Your task to perform on an android device: Open location settings Image 0: 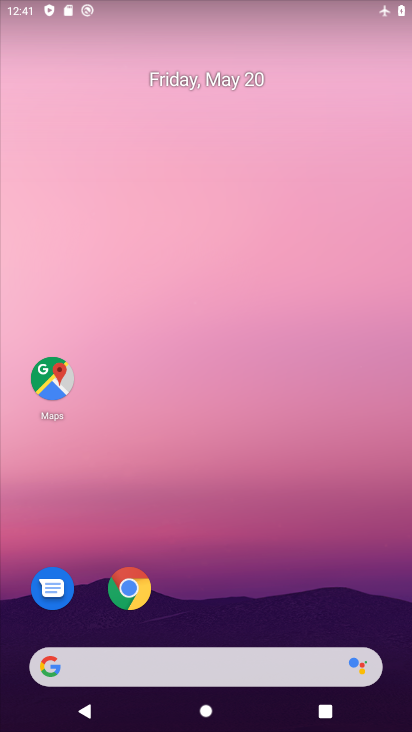
Step 0: drag from (384, 635) to (350, 63)
Your task to perform on an android device: Open location settings Image 1: 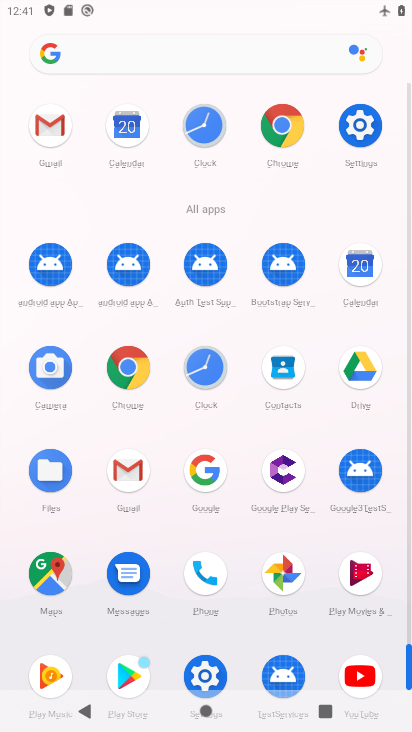
Step 1: click (409, 626)
Your task to perform on an android device: Open location settings Image 2: 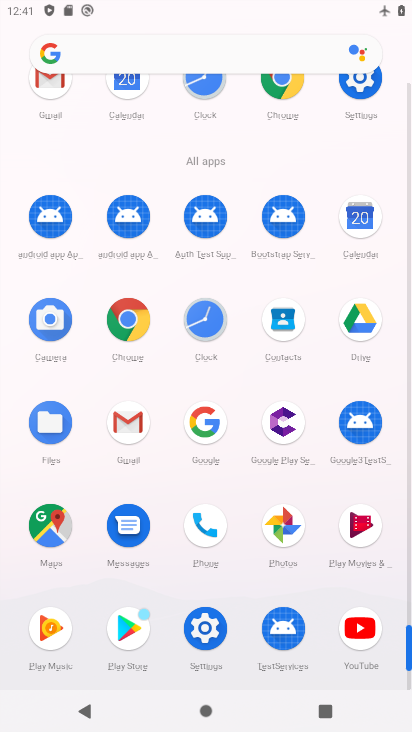
Step 2: click (205, 630)
Your task to perform on an android device: Open location settings Image 3: 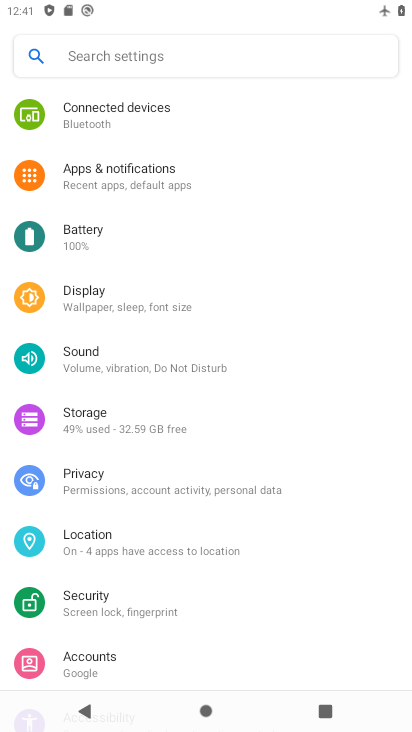
Step 3: click (96, 540)
Your task to perform on an android device: Open location settings Image 4: 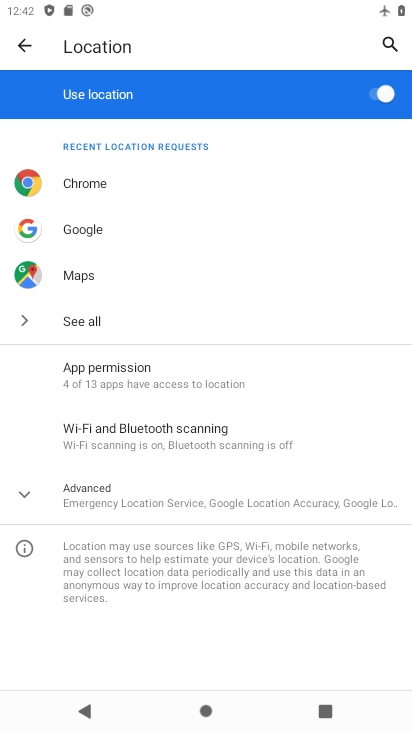
Step 4: task complete